Your task to perform on an android device: install app "Reddit" Image 0: 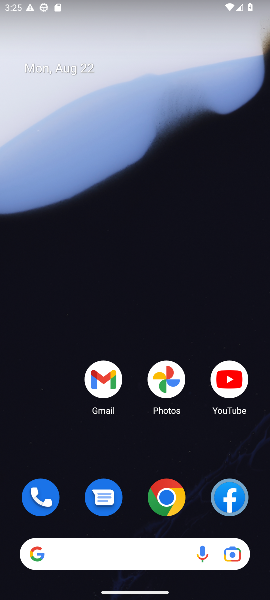
Step 0: drag from (137, 459) to (145, 95)
Your task to perform on an android device: install app "Reddit" Image 1: 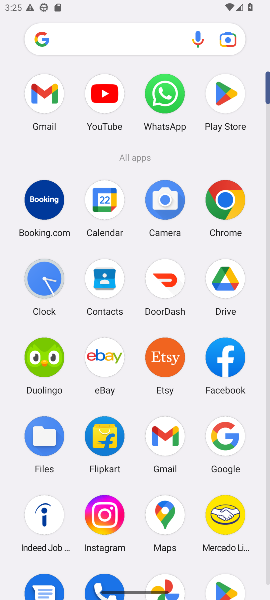
Step 1: click (220, 107)
Your task to perform on an android device: install app "Reddit" Image 2: 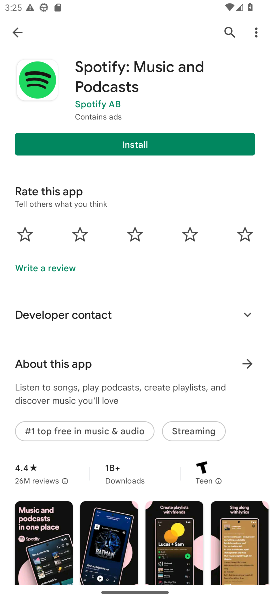
Step 2: click (227, 29)
Your task to perform on an android device: install app "Reddit" Image 3: 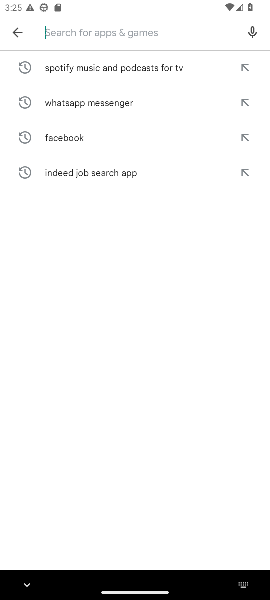
Step 3: type "Reddit"
Your task to perform on an android device: install app "Reddit" Image 4: 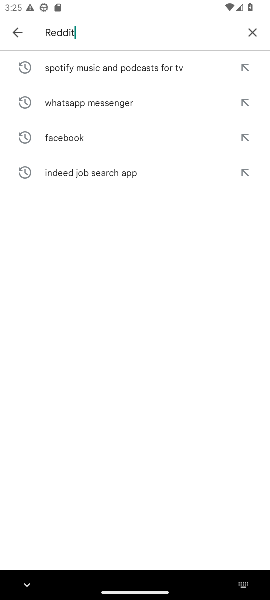
Step 4: type ""
Your task to perform on an android device: install app "Reddit" Image 5: 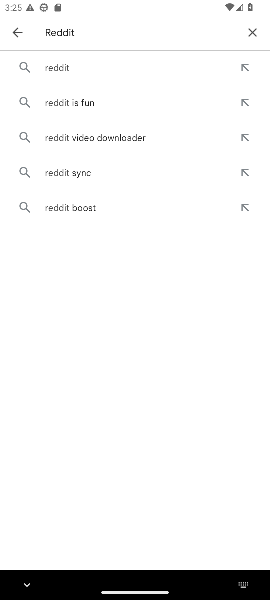
Step 5: click (68, 71)
Your task to perform on an android device: install app "Reddit" Image 6: 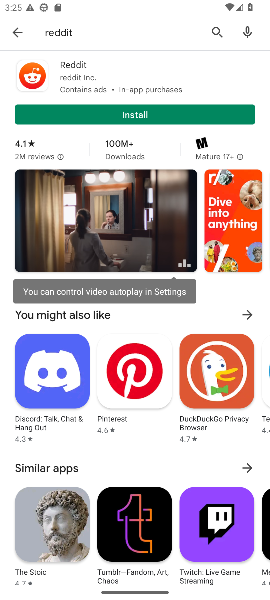
Step 6: click (158, 112)
Your task to perform on an android device: install app "Reddit" Image 7: 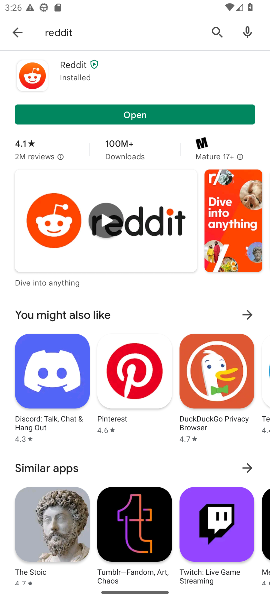
Step 7: task complete